Your task to perform on an android device: stop showing notifications on the lock screen Image 0: 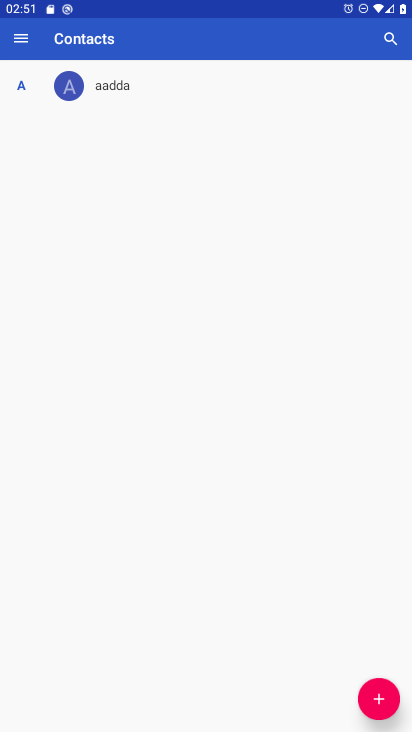
Step 0: press home button
Your task to perform on an android device: stop showing notifications on the lock screen Image 1: 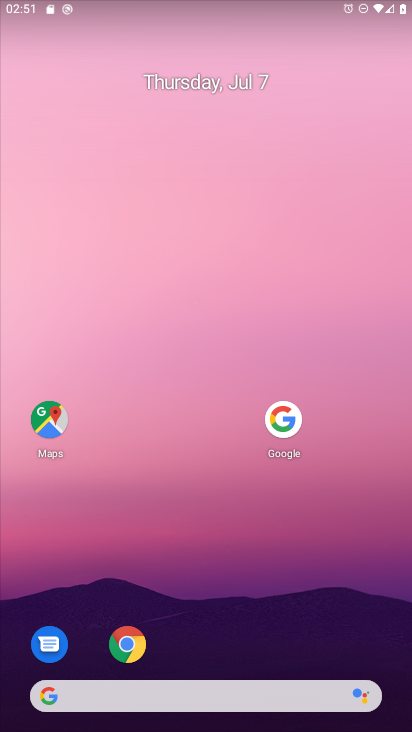
Step 1: drag from (184, 687) to (320, 4)
Your task to perform on an android device: stop showing notifications on the lock screen Image 2: 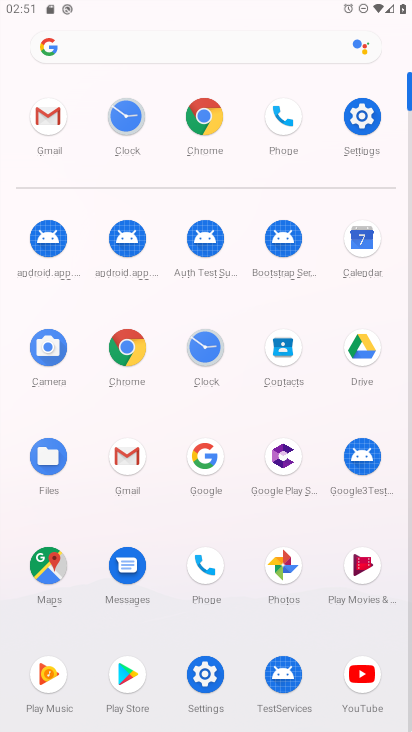
Step 2: click (364, 125)
Your task to perform on an android device: stop showing notifications on the lock screen Image 3: 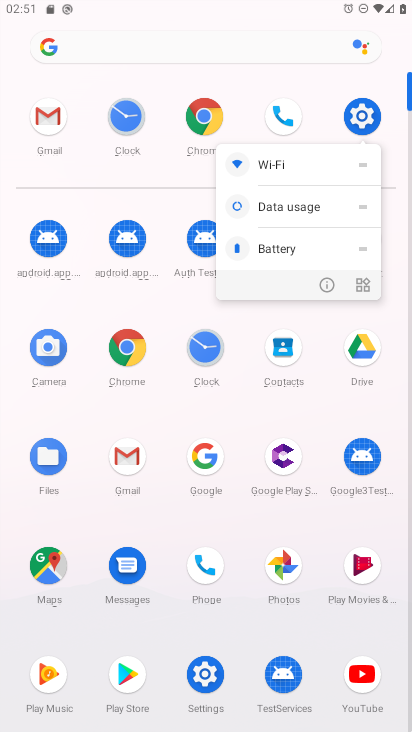
Step 3: click (358, 119)
Your task to perform on an android device: stop showing notifications on the lock screen Image 4: 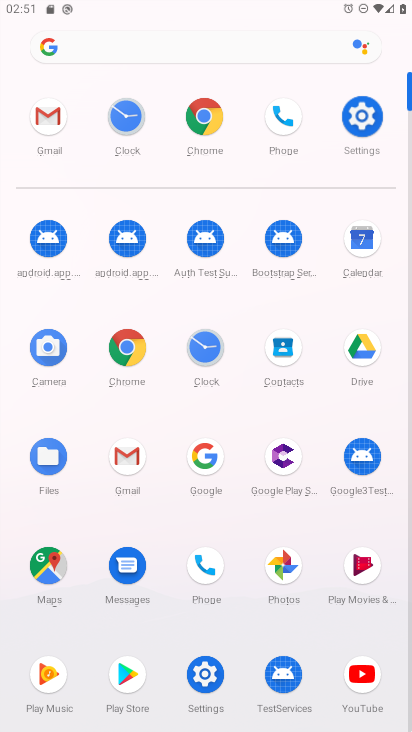
Step 4: click (358, 118)
Your task to perform on an android device: stop showing notifications on the lock screen Image 5: 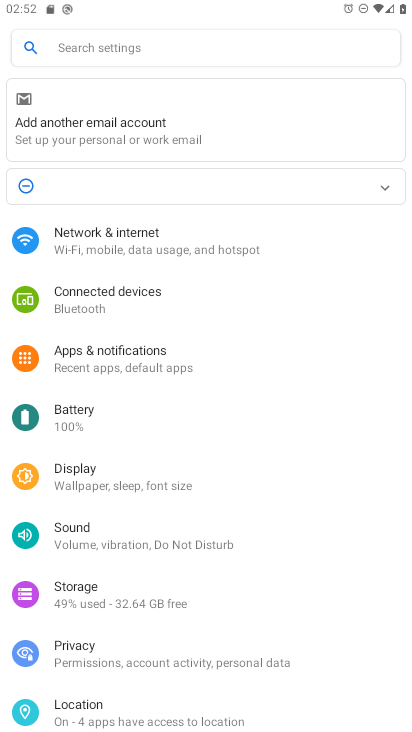
Step 5: click (149, 357)
Your task to perform on an android device: stop showing notifications on the lock screen Image 6: 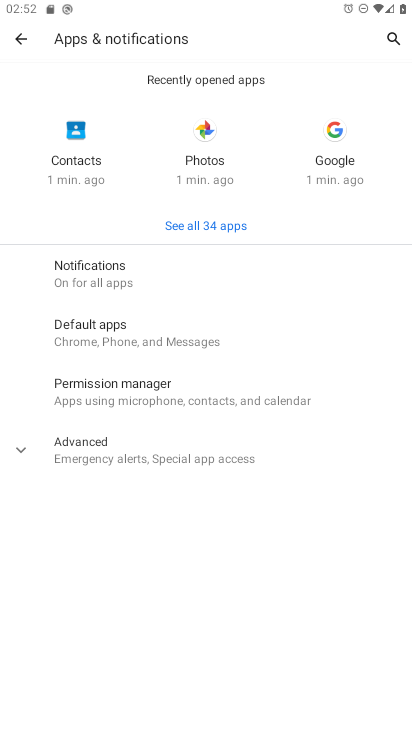
Step 6: click (130, 278)
Your task to perform on an android device: stop showing notifications on the lock screen Image 7: 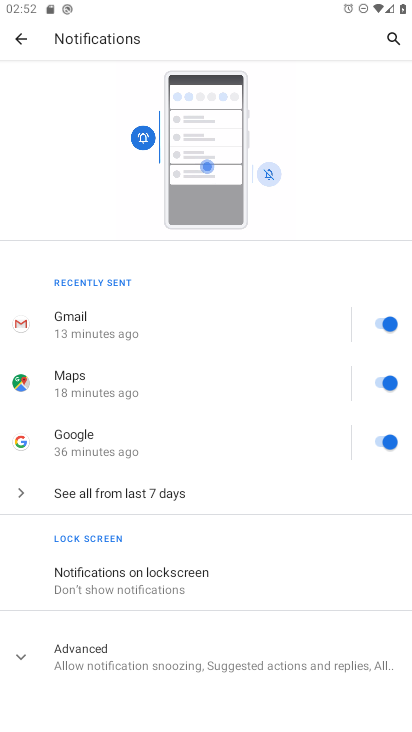
Step 7: click (162, 575)
Your task to perform on an android device: stop showing notifications on the lock screen Image 8: 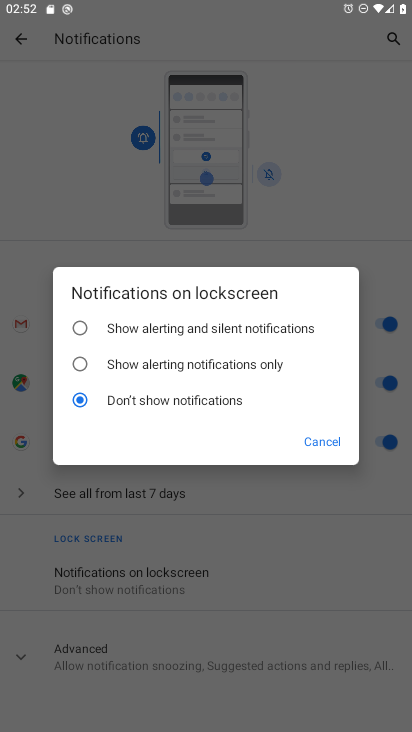
Step 8: task complete